Your task to perform on an android device: add a contact in the contacts app Image 0: 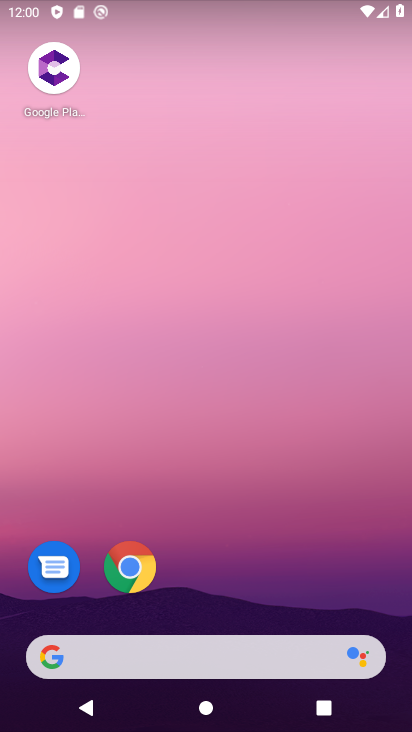
Step 0: drag from (317, 607) to (320, 333)
Your task to perform on an android device: add a contact in the contacts app Image 1: 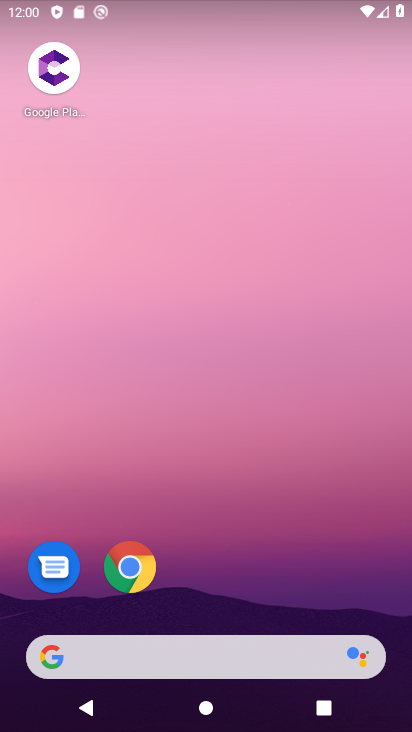
Step 1: drag from (249, 636) to (293, 285)
Your task to perform on an android device: add a contact in the contacts app Image 2: 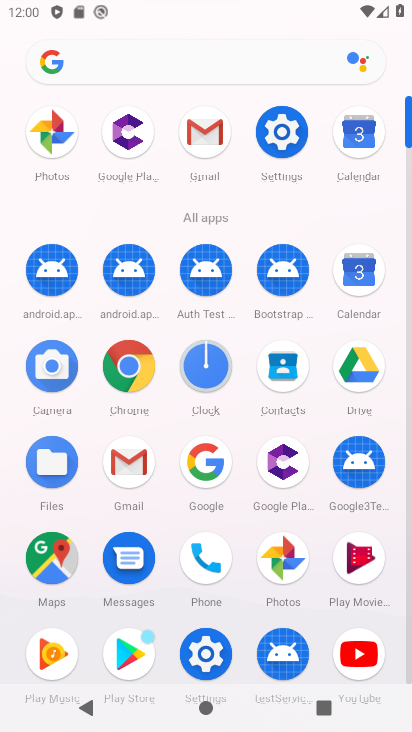
Step 2: click (281, 364)
Your task to perform on an android device: add a contact in the contacts app Image 3: 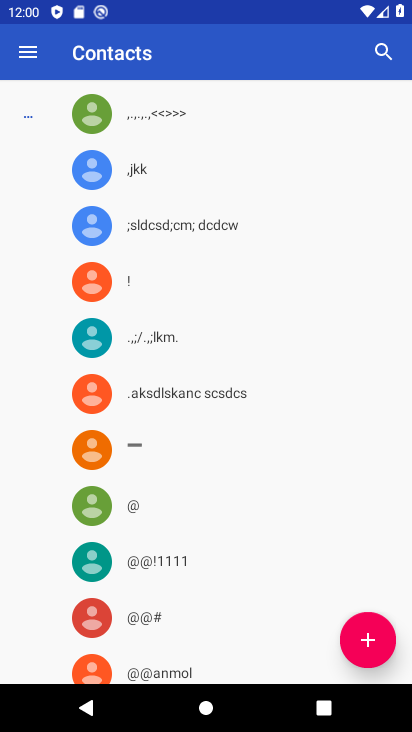
Step 3: click (353, 631)
Your task to perform on an android device: add a contact in the contacts app Image 4: 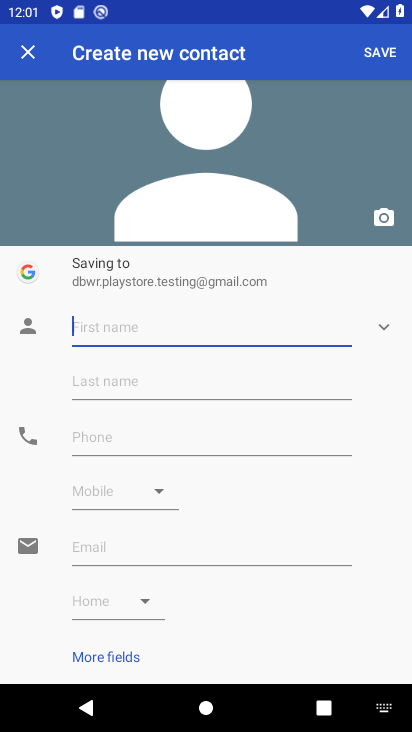
Step 4: type "fd"
Your task to perform on an android device: add a contact in the contacts app Image 5: 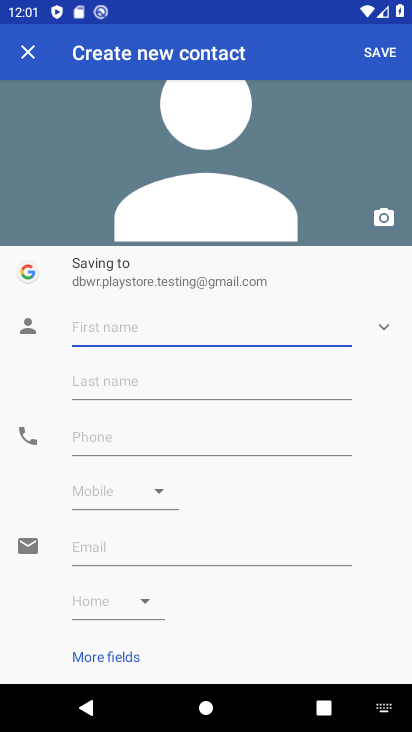
Step 5: click (193, 445)
Your task to perform on an android device: add a contact in the contacts app Image 6: 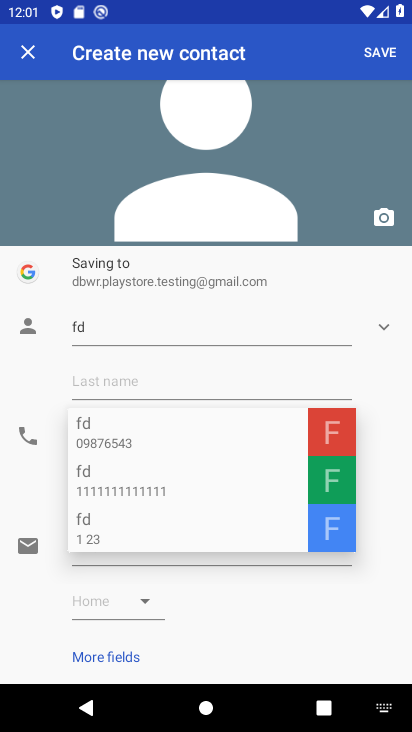
Step 6: type "6655557777"
Your task to perform on an android device: add a contact in the contacts app Image 7: 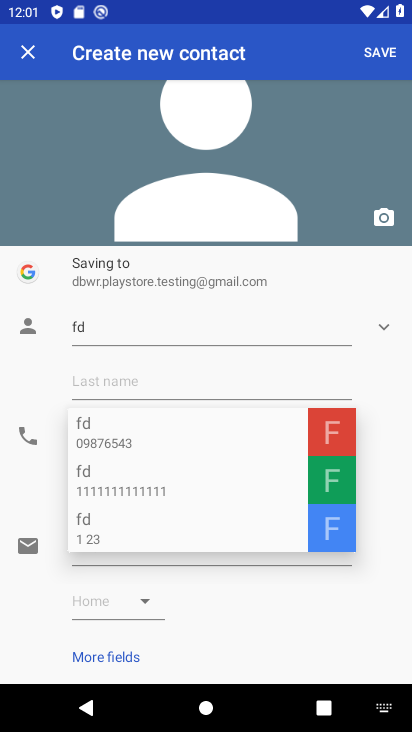
Step 7: click (366, 53)
Your task to perform on an android device: add a contact in the contacts app Image 8: 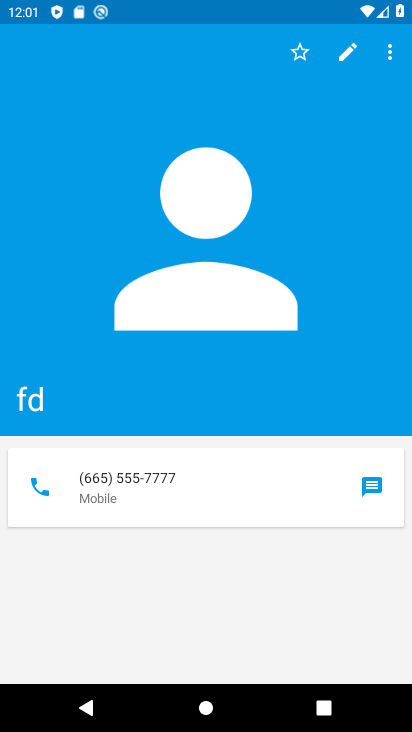
Step 8: task complete